Your task to perform on an android device: make emails show in primary in the gmail app Image 0: 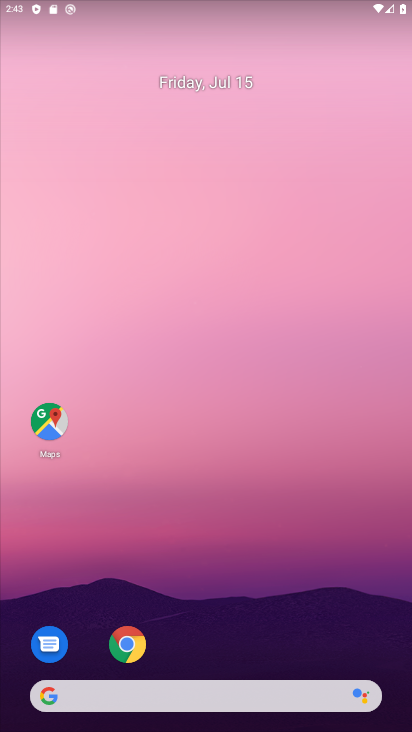
Step 0: drag from (192, 638) to (264, 86)
Your task to perform on an android device: make emails show in primary in the gmail app Image 1: 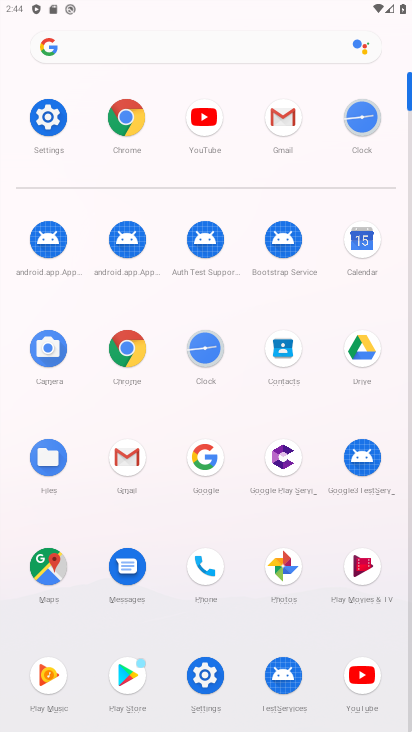
Step 1: click (284, 110)
Your task to perform on an android device: make emails show in primary in the gmail app Image 2: 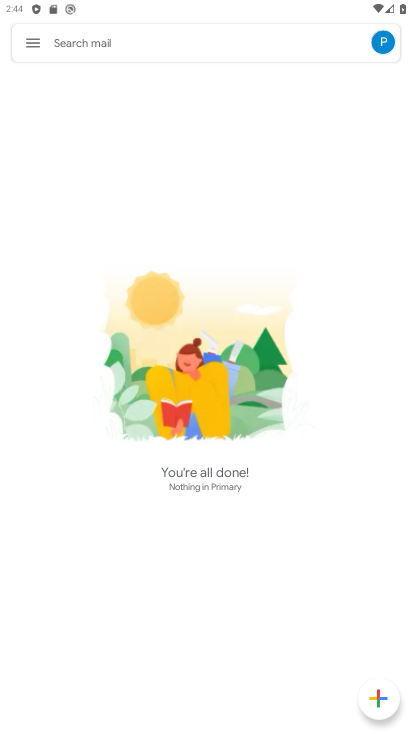
Step 2: click (23, 45)
Your task to perform on an android device: make emails show in primary in the gmail app Image 3: 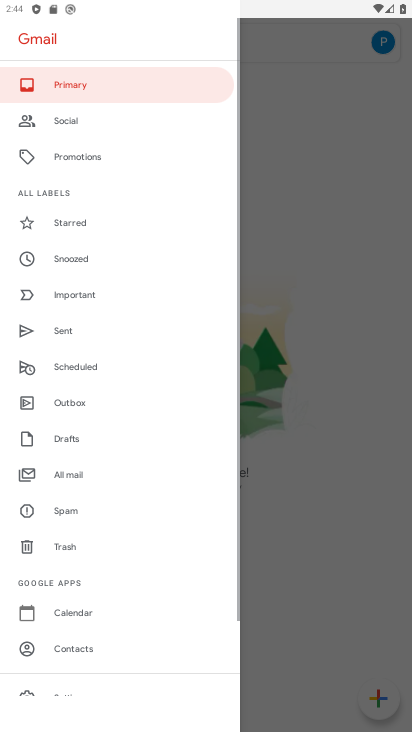
Step 3: drag from (79, 649) to (150, 130)
Your task to perform on an android device: make emails show in primary in the gmail app Image 4: 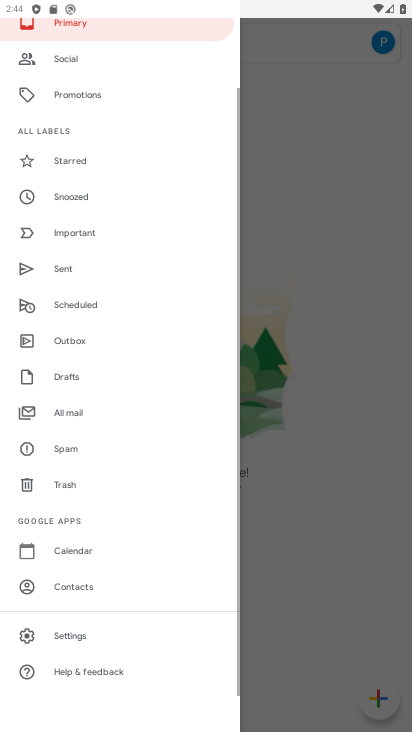
Step 4: click (67, 635)
Your task to perform on an android device: make emails show in primary in the gmail app Image 5: 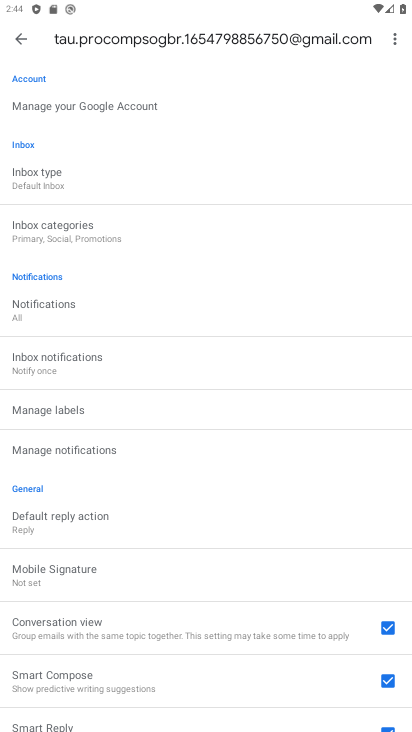
Step 5: task complete